Your task to perform on an android device: find which apps use the phone's location Image 0: 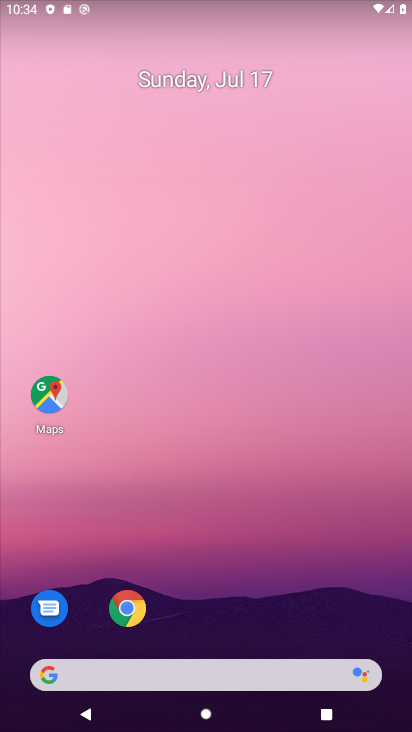
Step 0: drag from (274, 563) to (187, 107)
Your task to perform on an android device: find which apps use the phone's location Image 1: 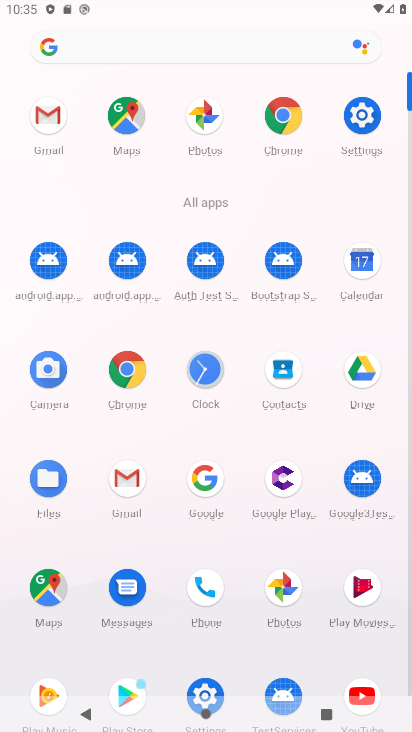
Step 1: click (388, 119)
Your task to perform on an android device: find which apps use the phone's location Image 2: 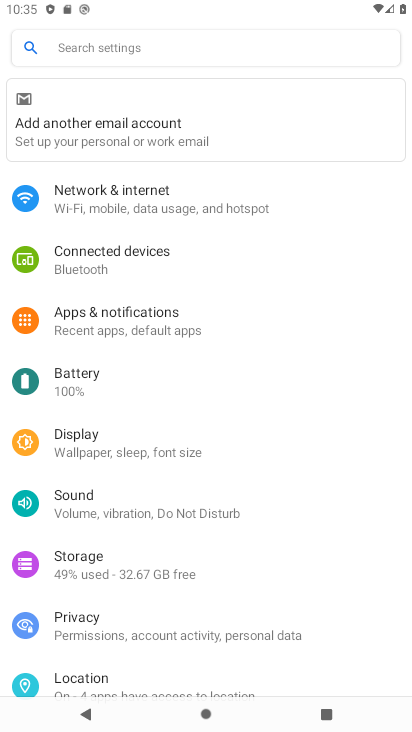
Step 2: click (195, 685)
Your task to perform on an android device: find which apps use the phone's location Image 3: 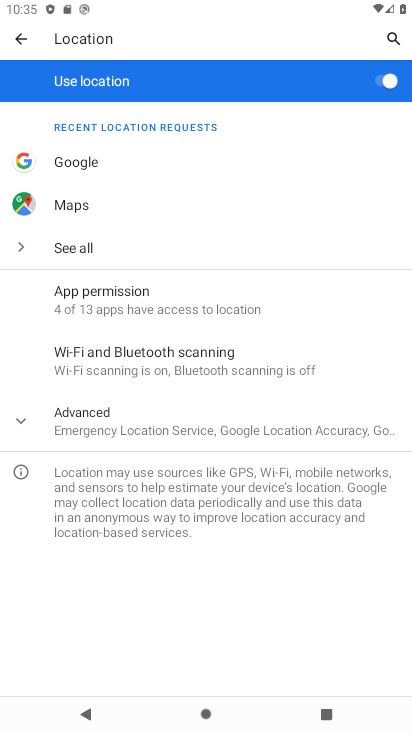
Step 3: click (198, 255)
Your task to perform on an android device: find which apps use the phone's location Image 4: 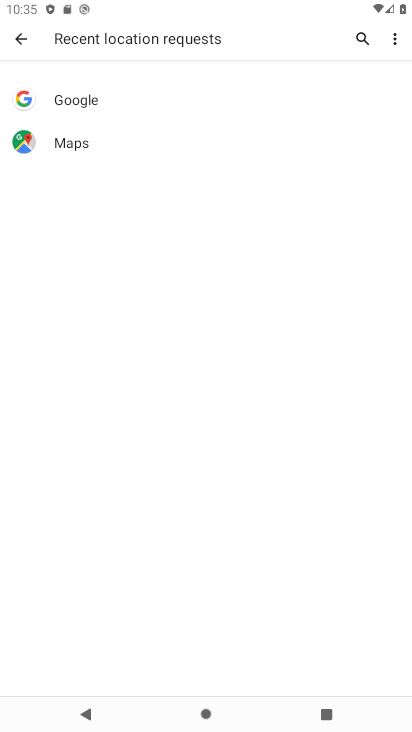
Step 4: task complete